Your task to perform on an android device: clear history in the chrome app Image 0: 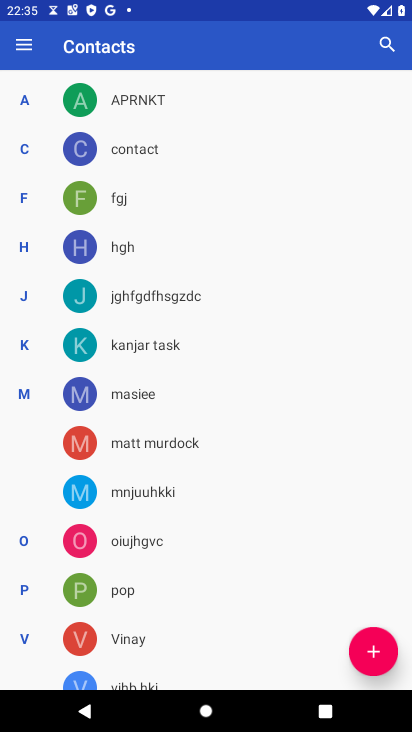
Step 0: press home button
Your task to perform on an android device: clear history in the chrome app Image 1: 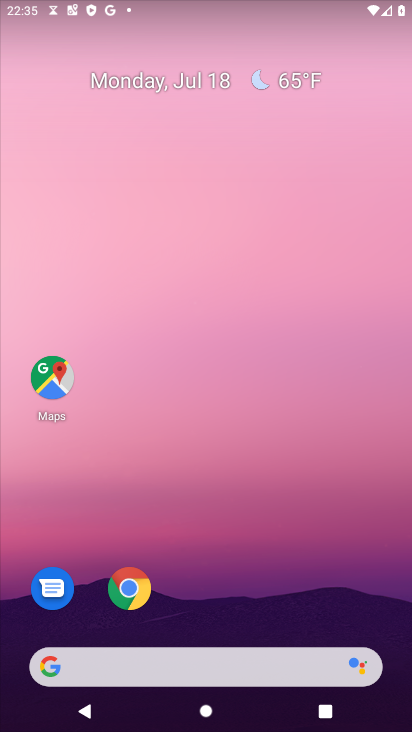
Step 1: click (128, 588)
Your task to perform on an android device: clear history in the chrome app Image 2: 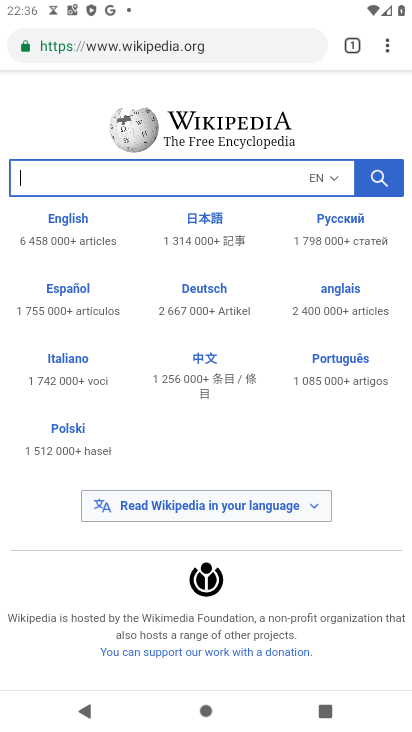
Step 2: click (389, 44)
Your task to perform on an android device: clear history in the chrome app Image 3: 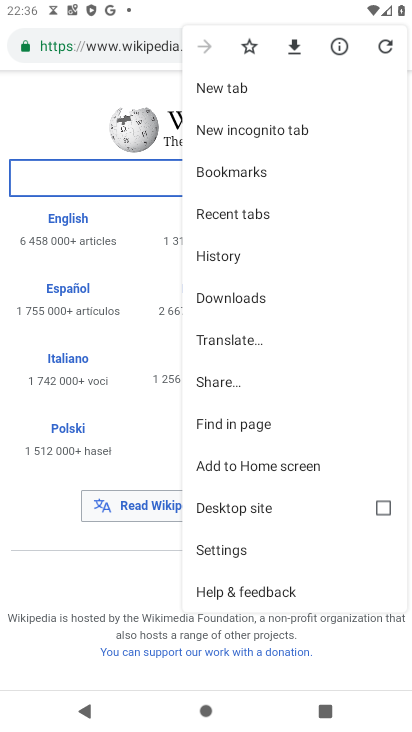
Step 3: click (232, 257)
Your task to perform on an android device: clear history in the chrome app Image 4: 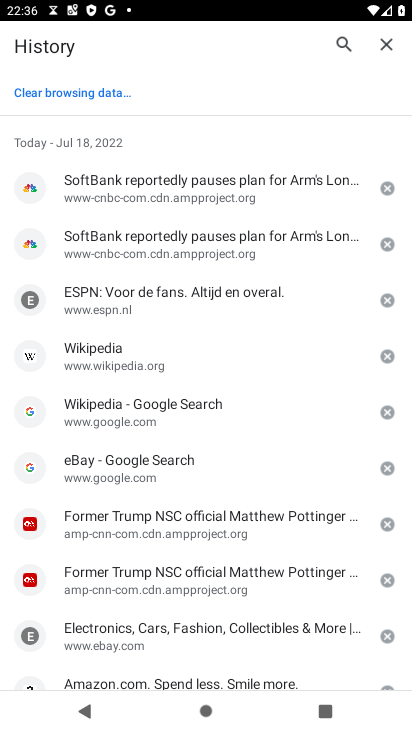
Step 4: click (106, 96)
Your task to perform on an android device: clear history in the chrome app Image 5: 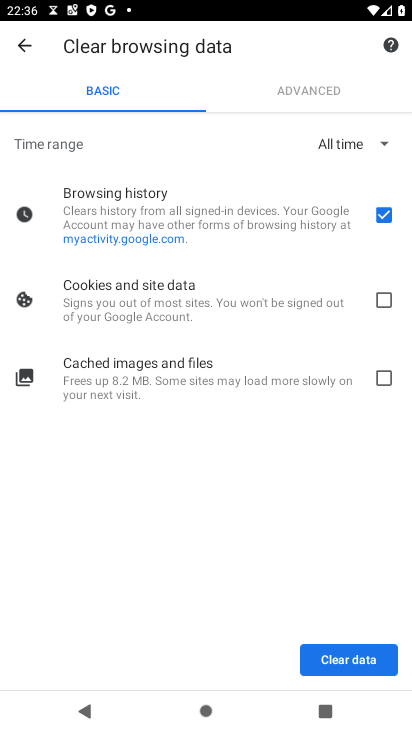
Step 5: click (385, 302)
Your task to perform on an android device: clear history in the chrome app Image 6: 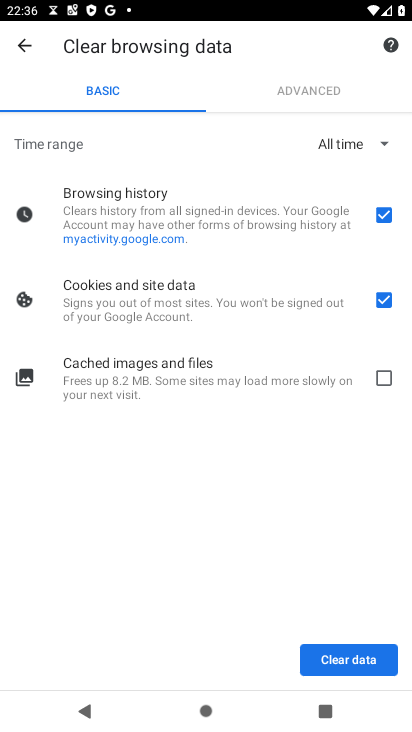
Step 6: click (381, 373)
Your task to perform on an android device: clear history in the chrome app Image 7: 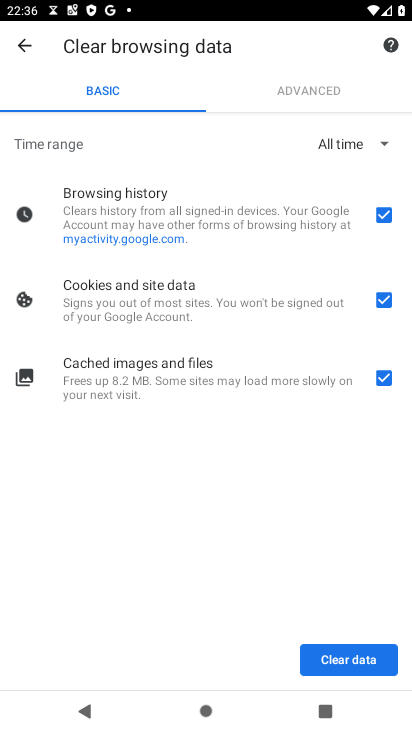
Step 7: click (355, 656)
Your task to perform on an android device: clear history in the chrome app Image 8: 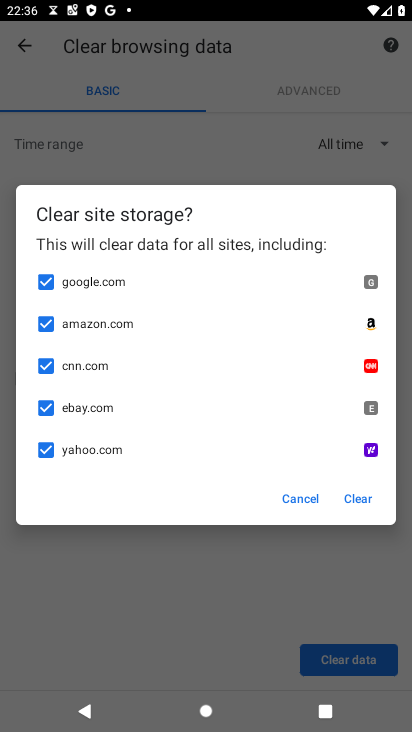
Step 8: click (354, 498)
Your task to perform on an android device: clear history in the chrome app Image 9: 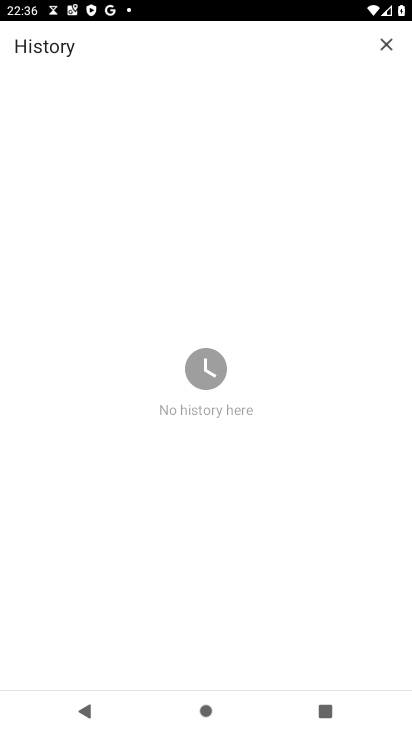
Step 9: task complete